Your task to perform on an android device: check battery use Image 0: 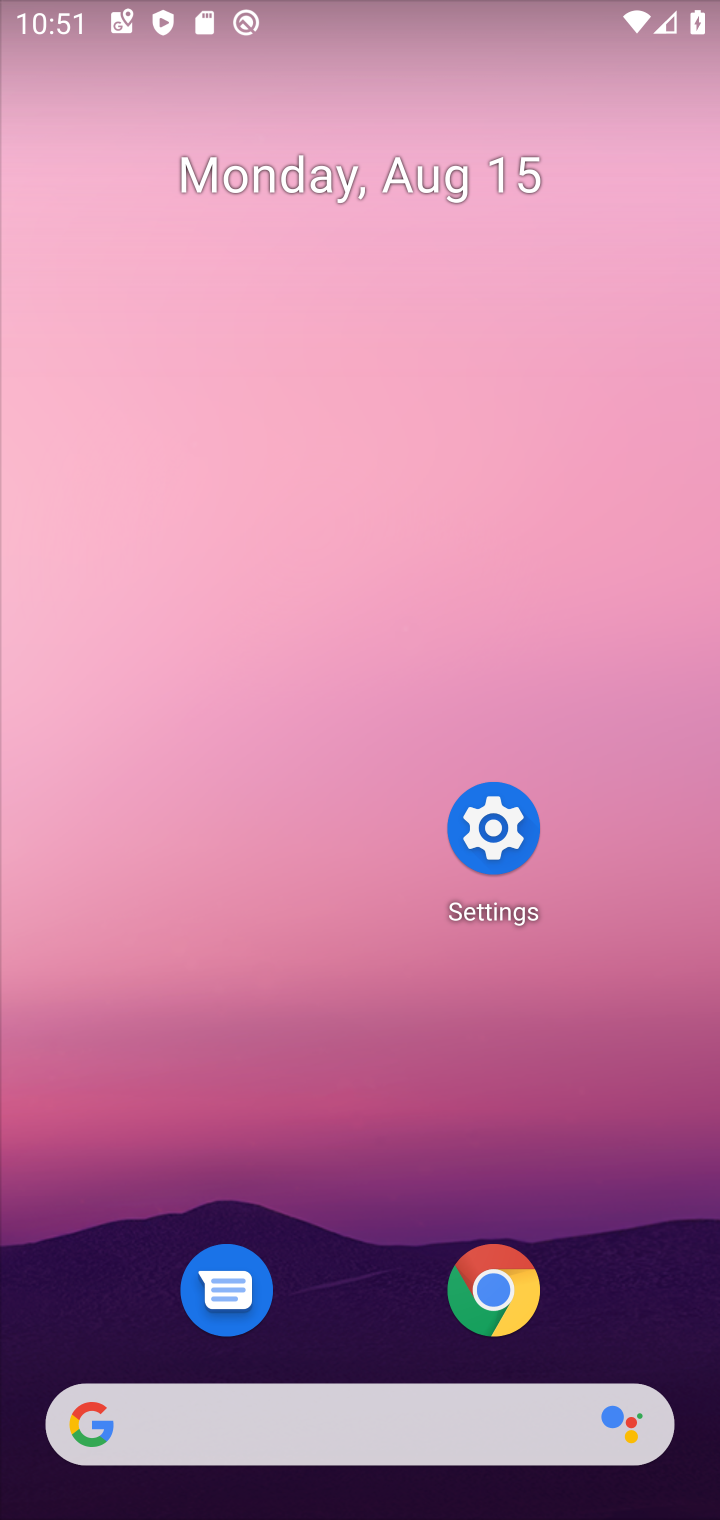
Step 0: click (492, 828)
Your task to perform on an android device: check battery use Image 1: 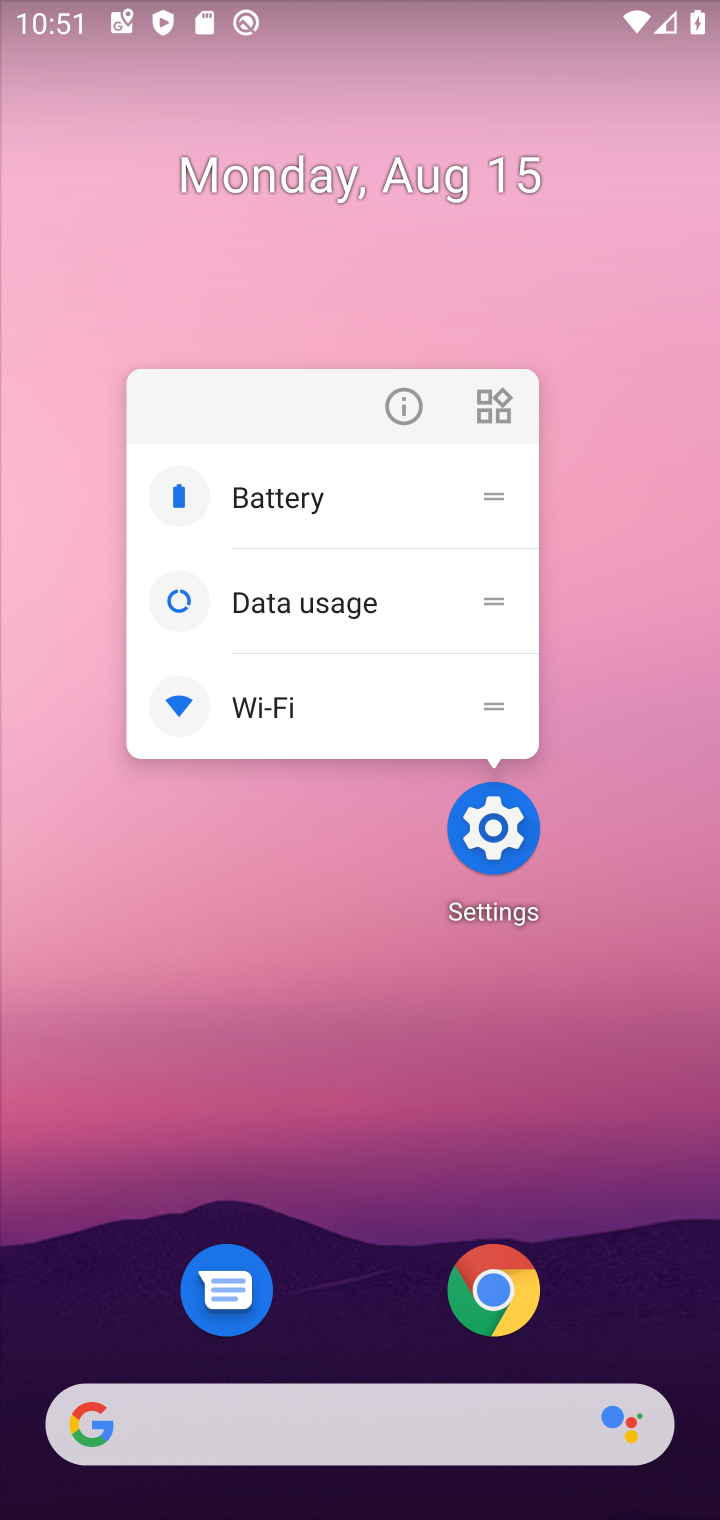
Step 1: click (492, 828)
Your task to perform on an android device: check battery use Image 2: 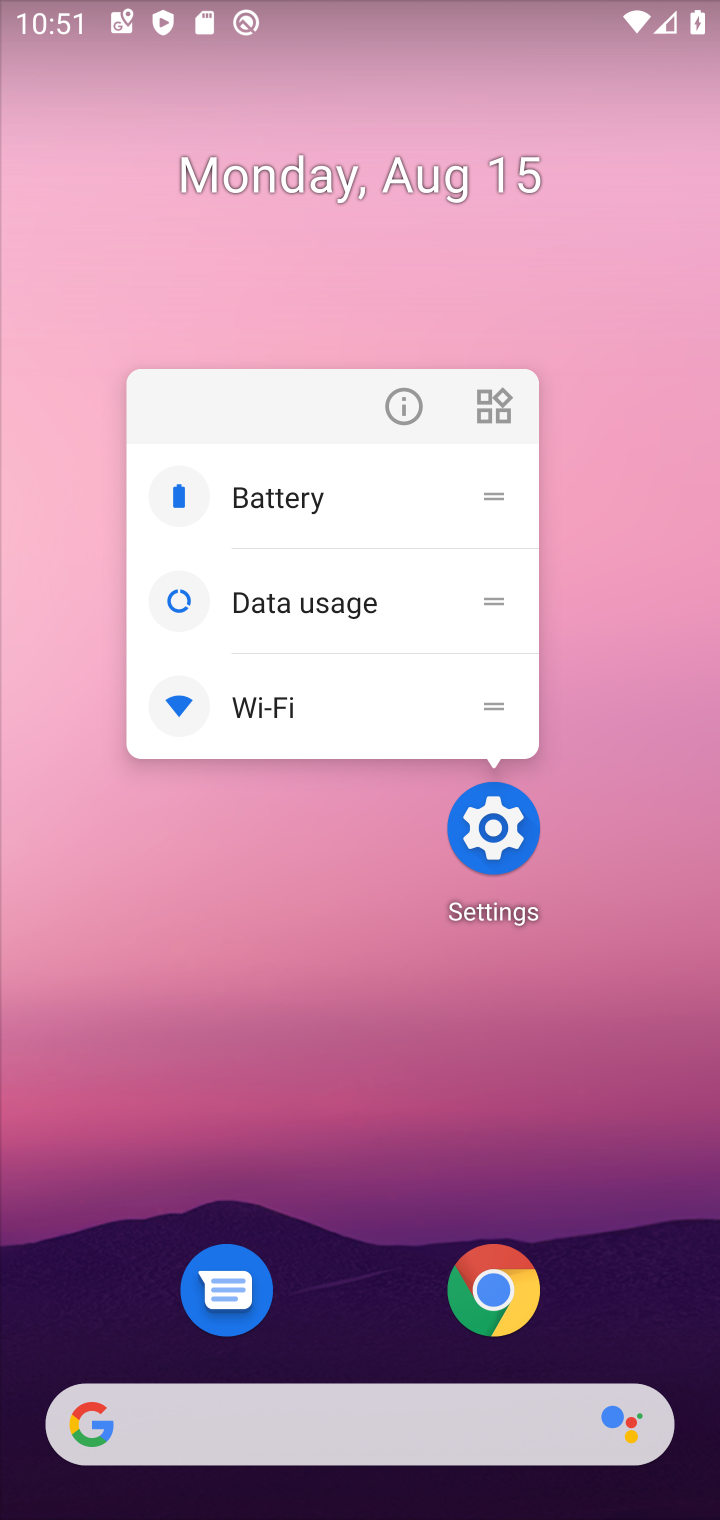
Step 2: click (492, 834)
Your task to perform on an android device: check battery use Image 3: 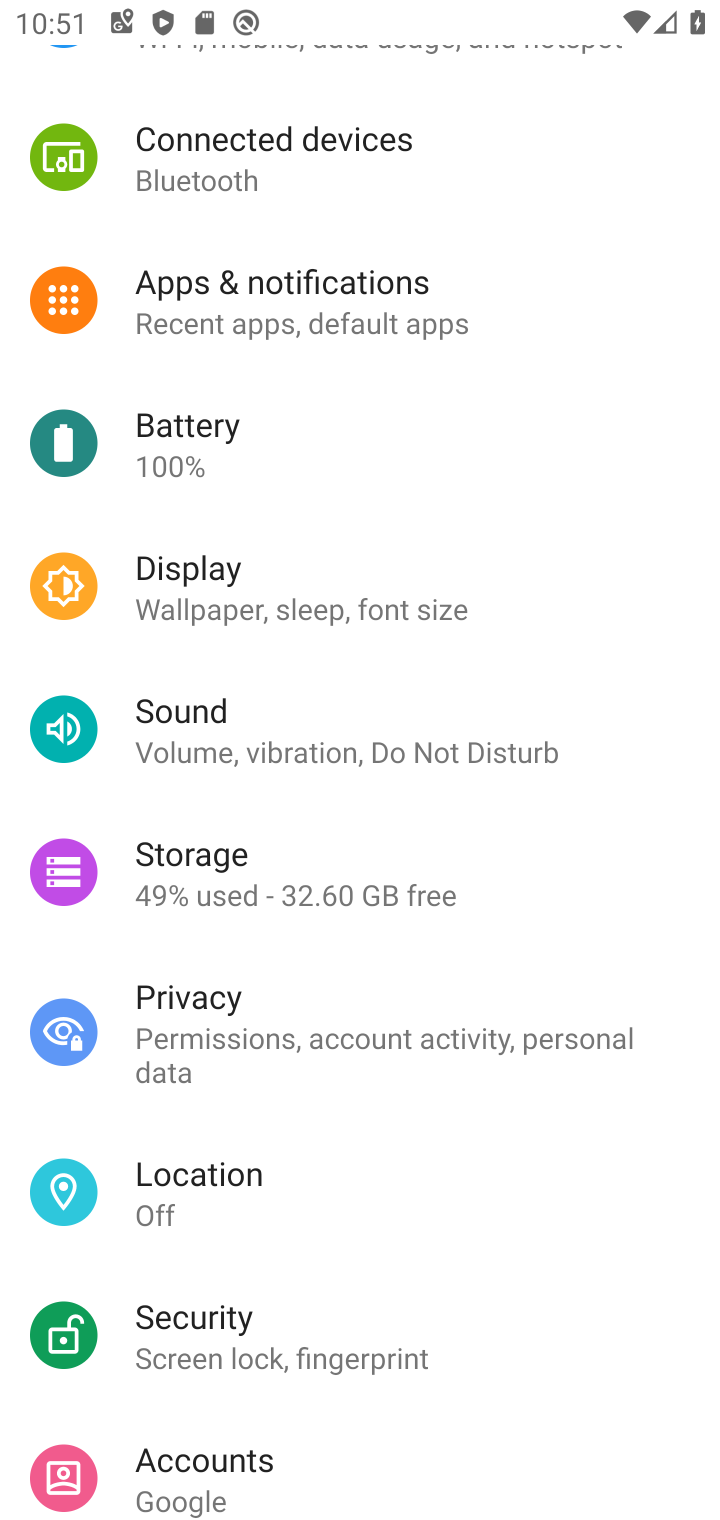
Step 3: click (206, 435)
Your task to perform on an android device: check battery use Image 4: 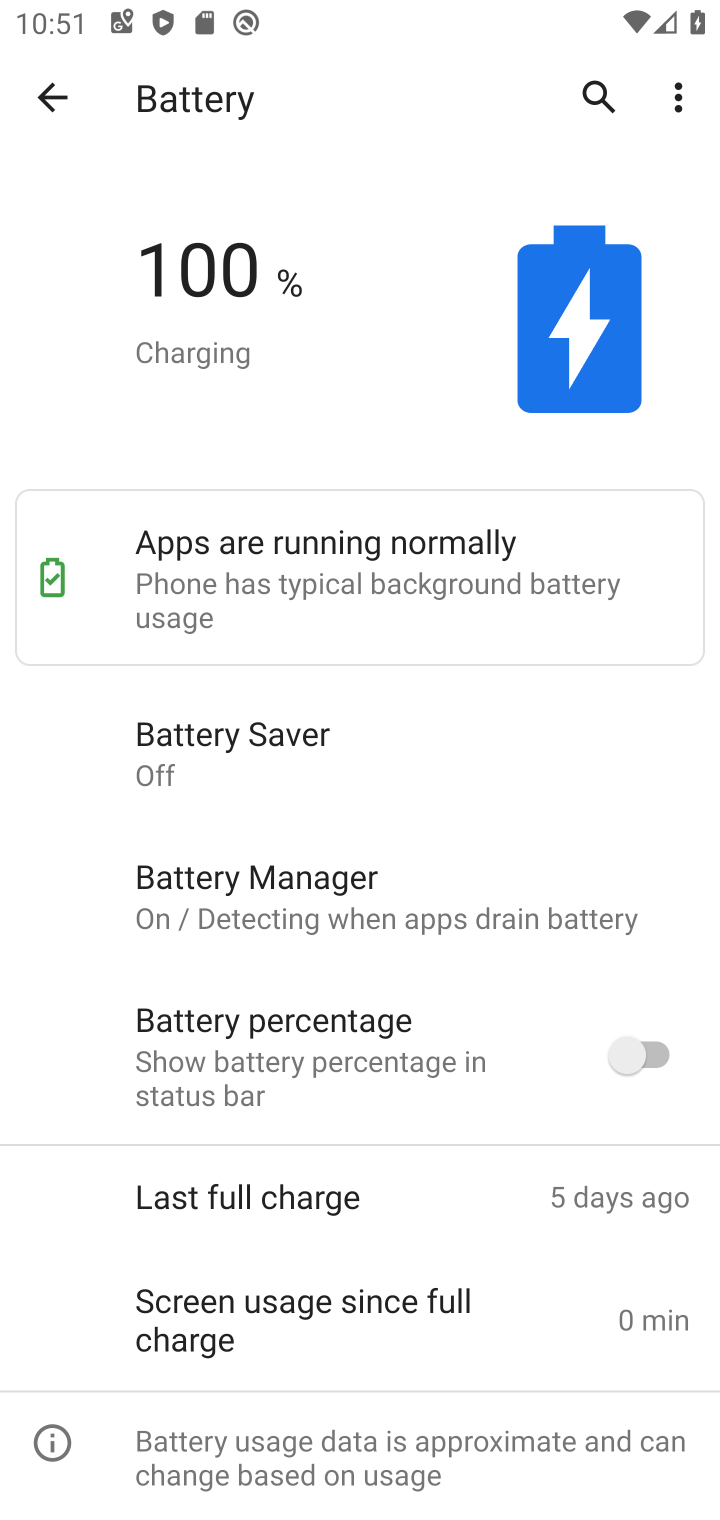
Step 4: click (673, 92)
Your task to perform on an android device: check battery use Image 5: 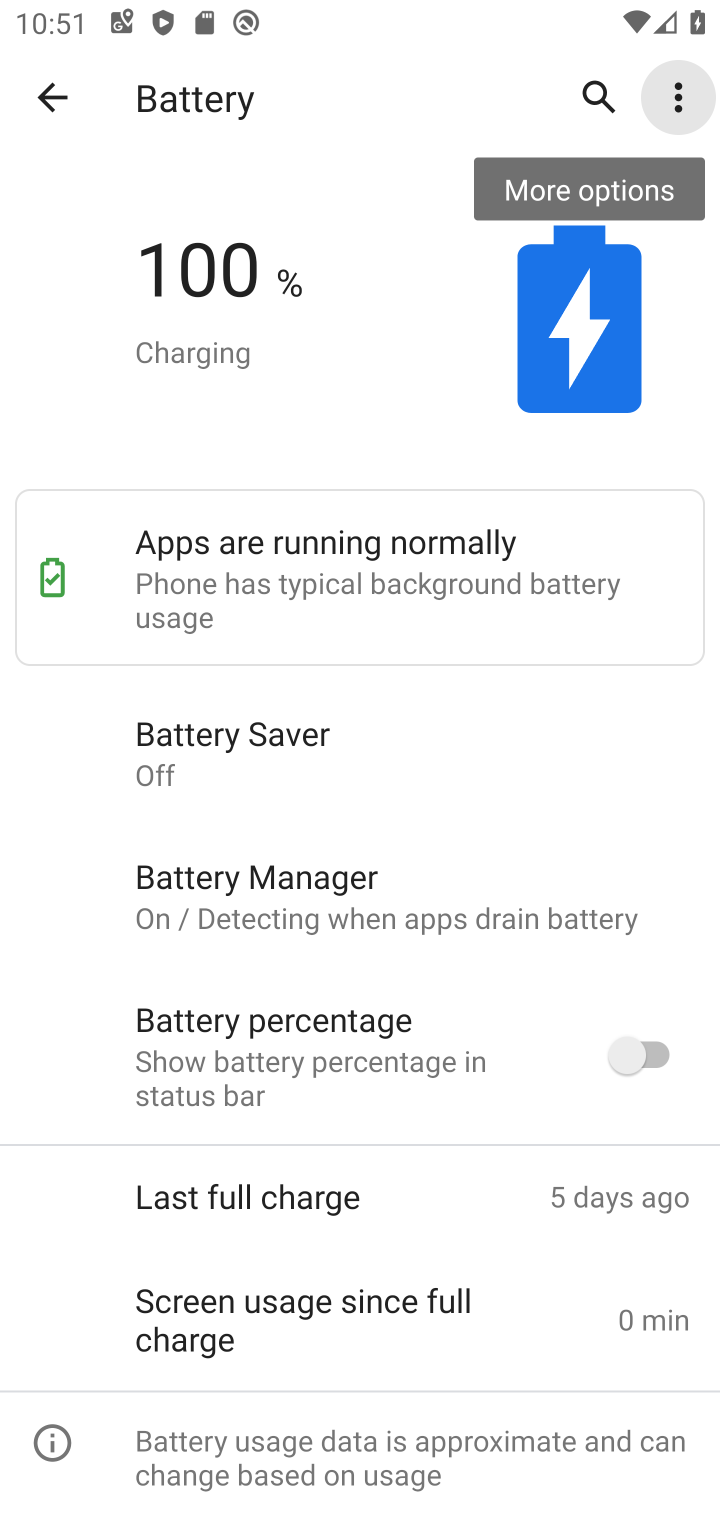
Step 5: click (673, 92)
Your task to perform on an android device: check battery use Image 6: 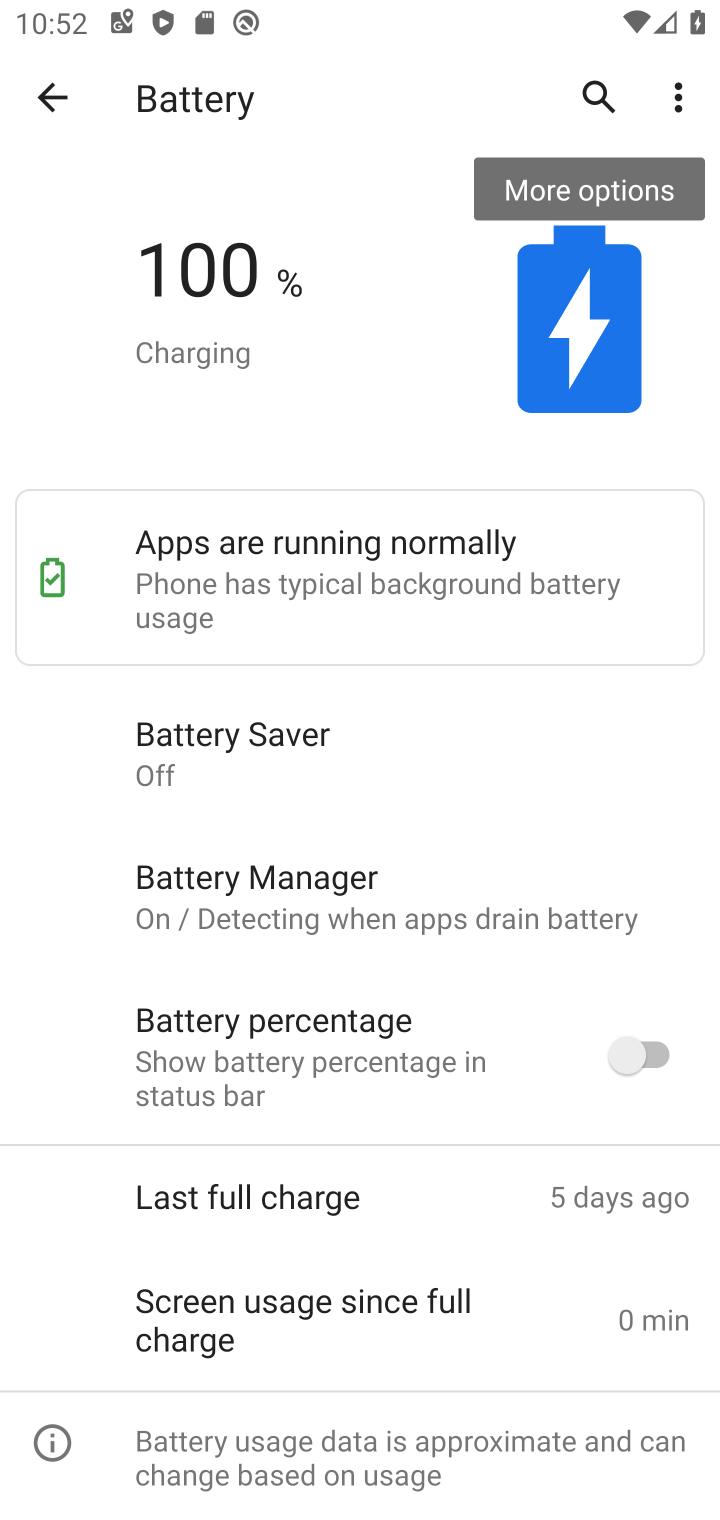
Step 6: click (673, 92)
Your task to perform on an android device: check battery use Image 7: 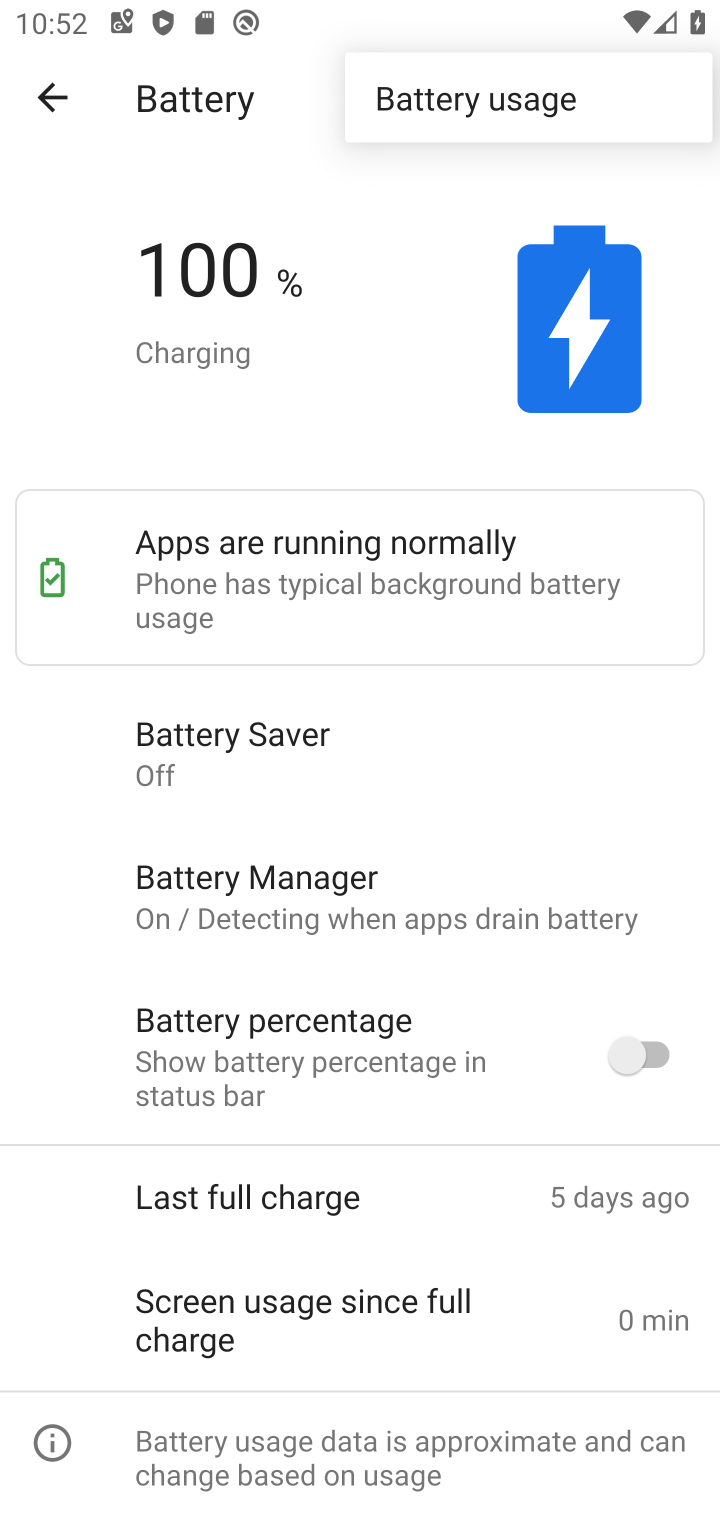
Step 7: click (474, 104)
Your task to perform on an android device: check battery use Image 8: 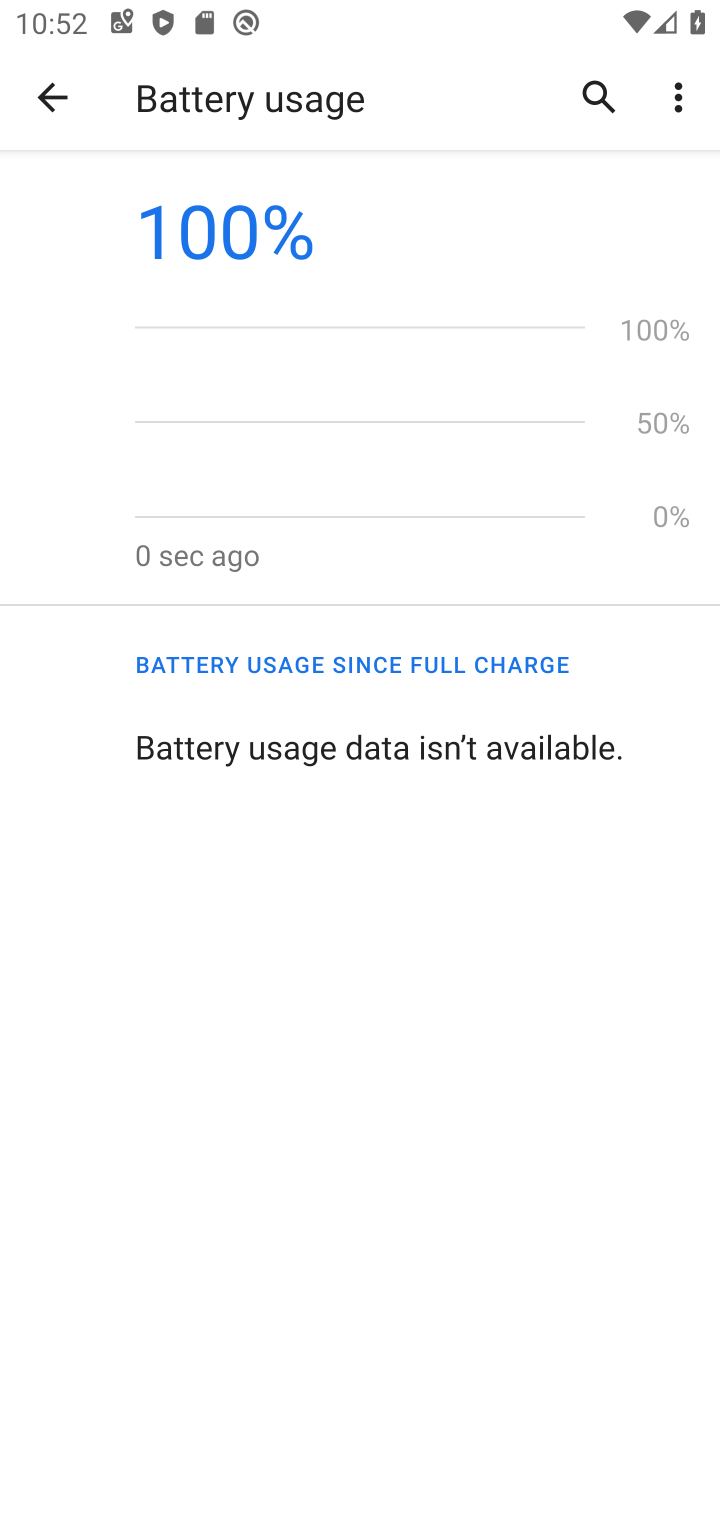
Step 8: task complete